Your task to perform on an android device: Open Youtube and go to the subscriptions tab Image 0: 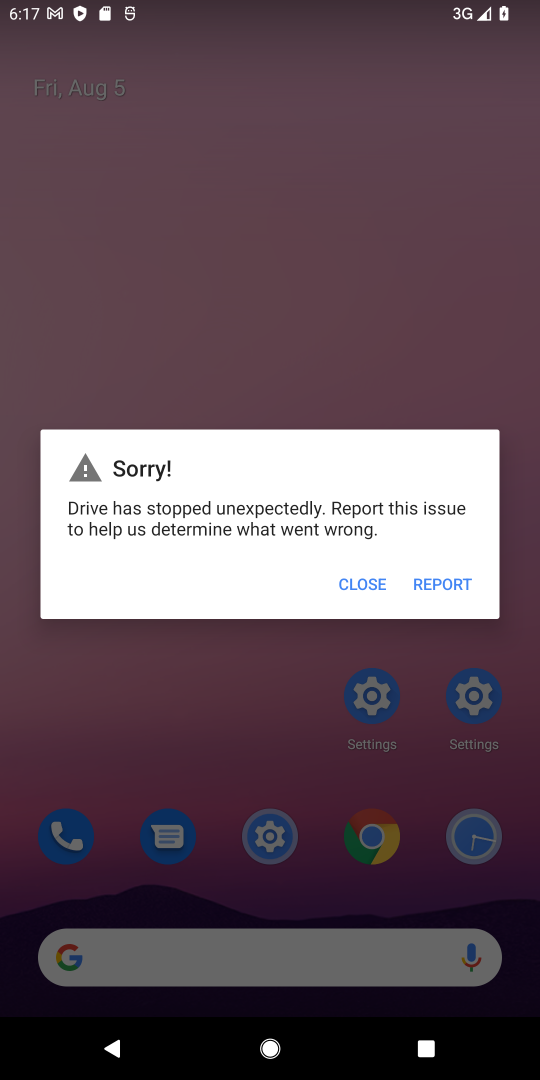
Step 0: click (347, 579)
Your task to perform on an android device: Open Youtube and go to the subscriptions tab Image 1: 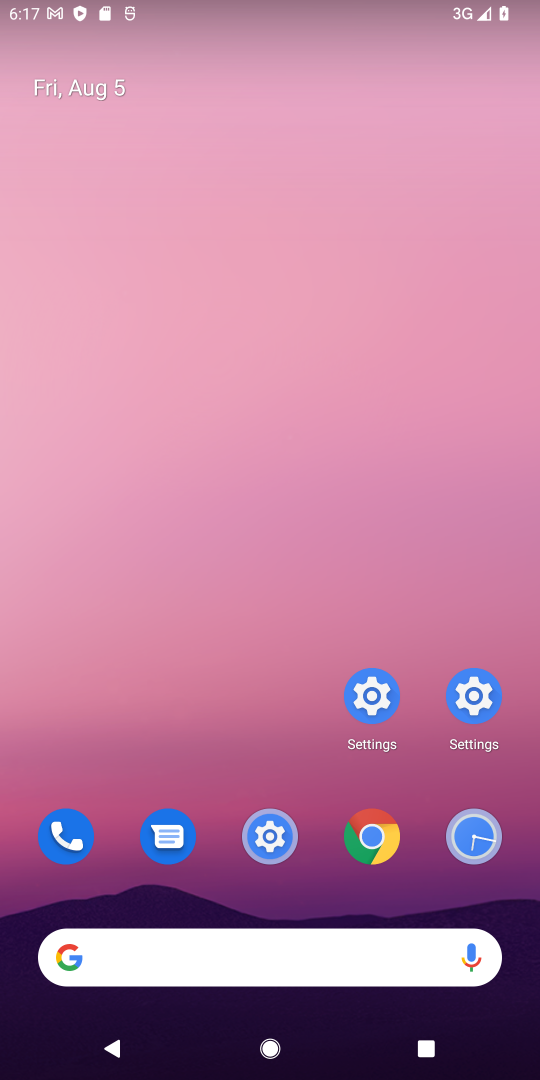
Step 1: click (351, 231)
Your task to perform on an android device: Open Youtube and go to the subscriptions tab Image 2: 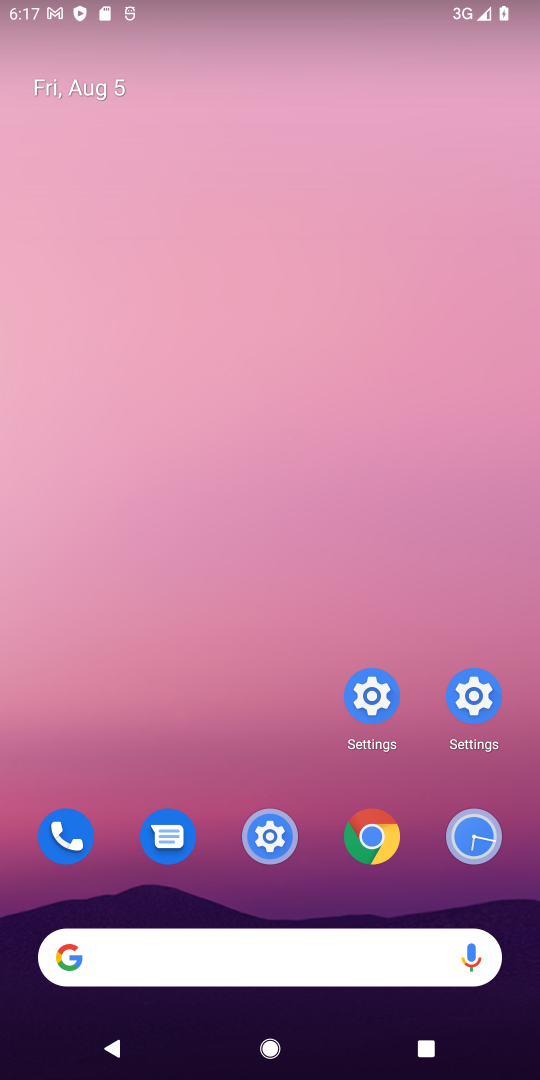
Step 2: press back button
Your task to perform on an android device: Open Youtube and go to the subscriptions tab Image 3: 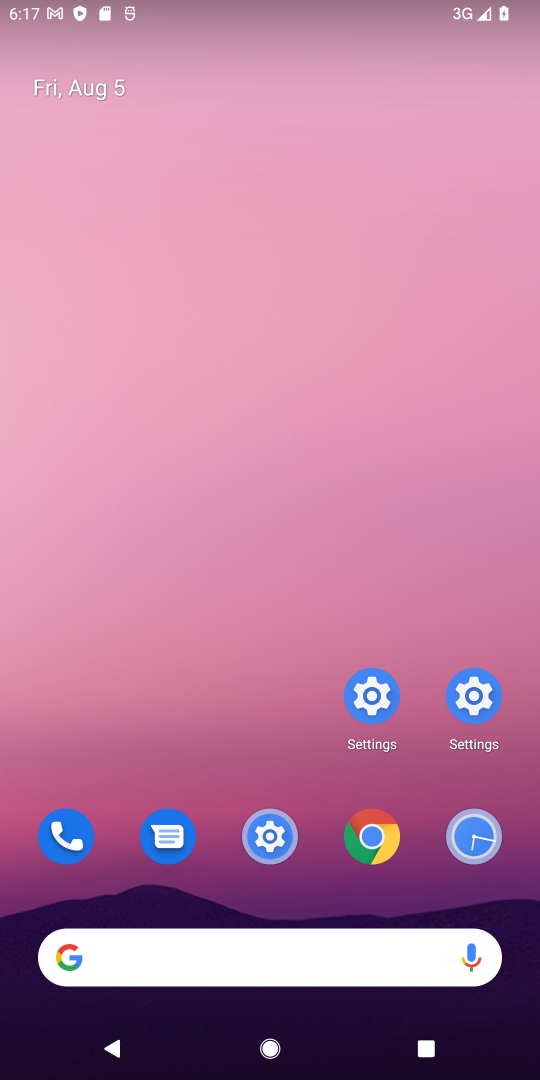
Step 3: drag from (355, 888) to (231, 165)
Your task to perform on an android device: Open Youtube and go to the subscriptions tab Image 4: 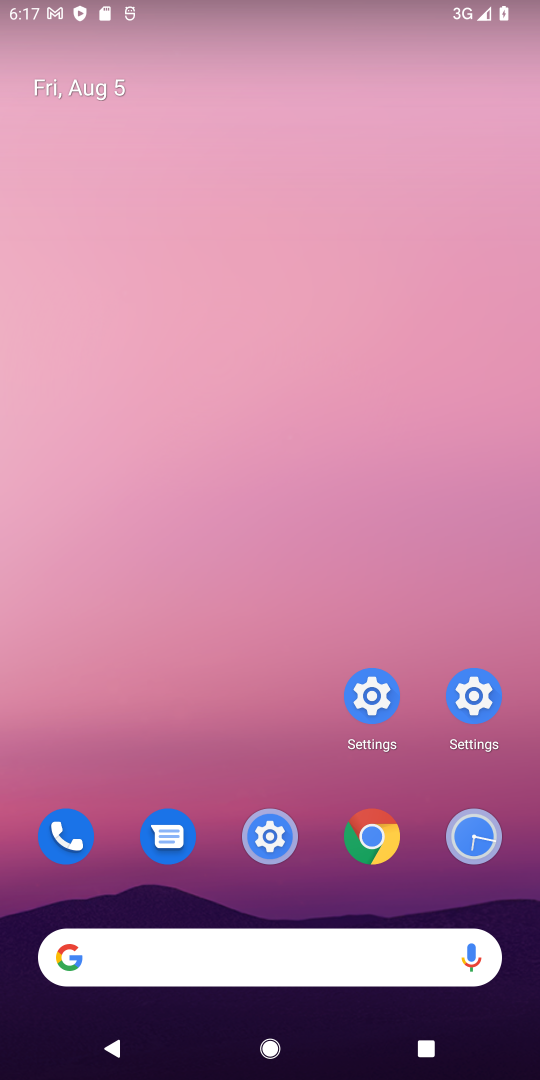
Step 4: drag from (319, 840) to (230, 227)
Your task to perform on an android device: Open Youtube and go to the subscriptions tab Image 5: 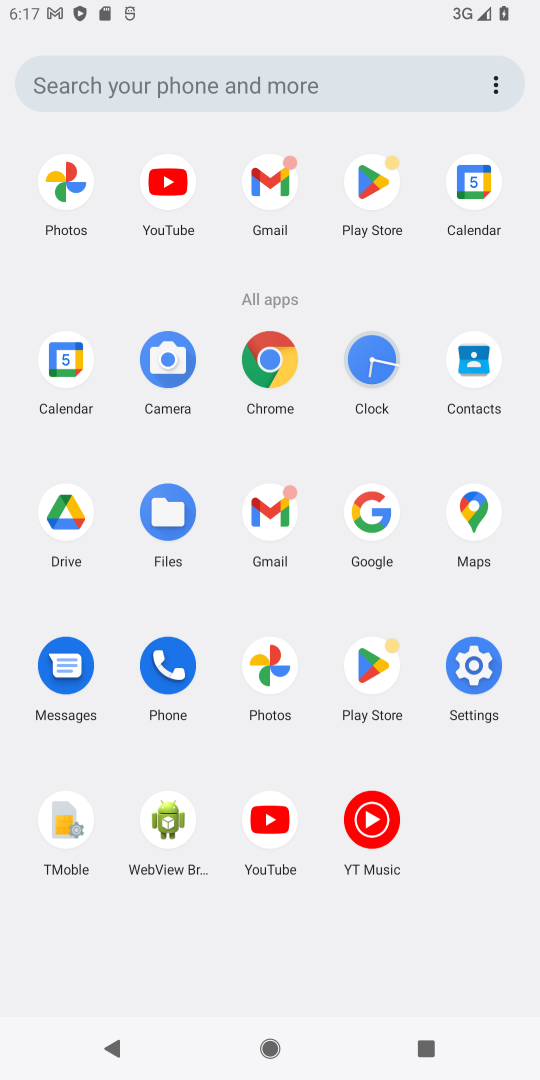
Step 5: drag from (264, 712) to (219, 309)
Your task to perform on an android device: Open Youtube and go to the subscriptions tab Image 6: 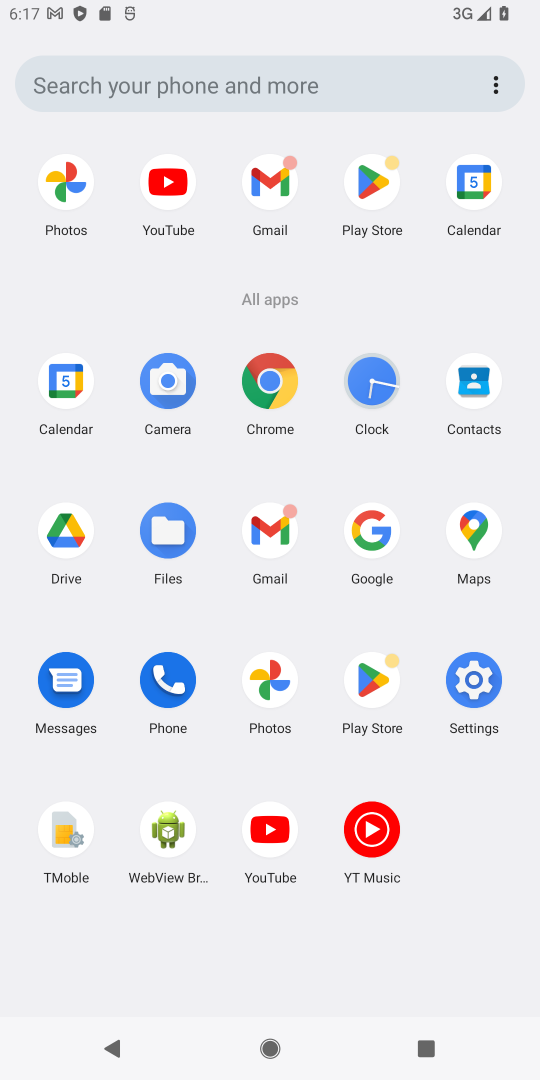
Step 6: click (275, 827)
Your task to perform on an android device: Open Youtube and go to the subscriptions tab Image 7: 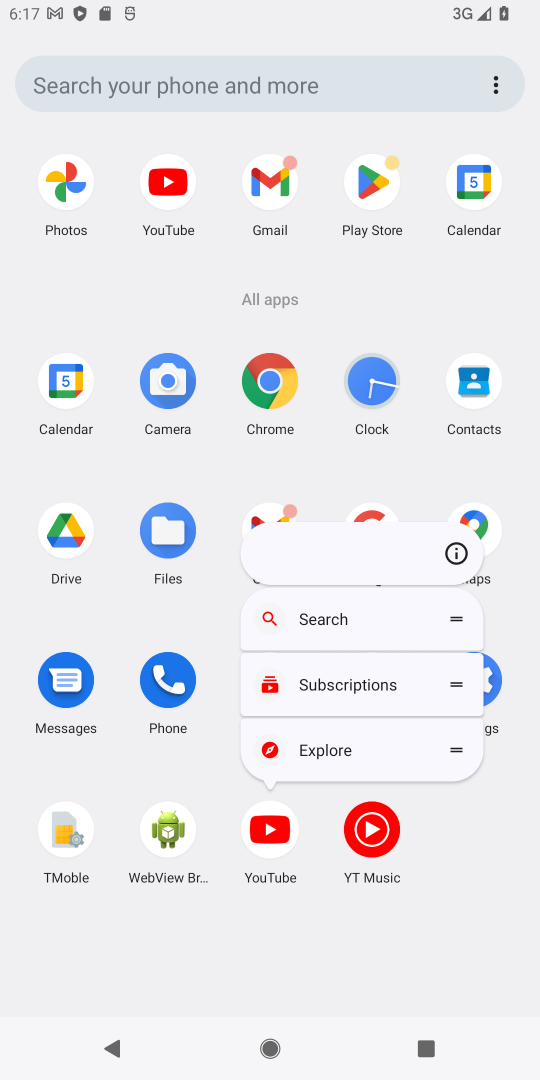
Step 7: click (266, 805)
Your task to perform on an android device: Open Youtube and go to the subscriptions tab Image 8: 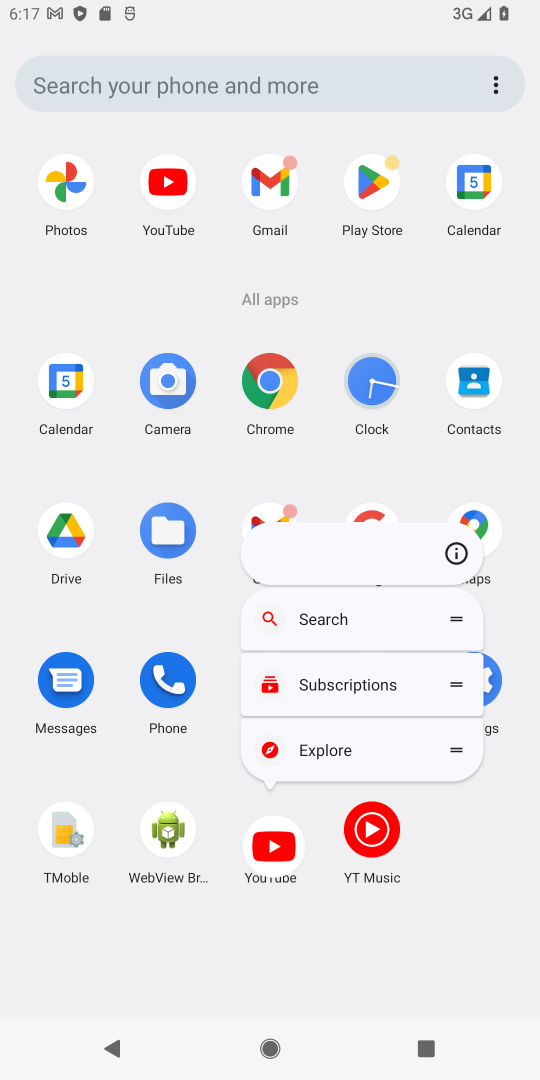
Step 8: click (273, 825)
Your task to perform on an android device: Open Youtube and go to the subscriptions tab Image 9: 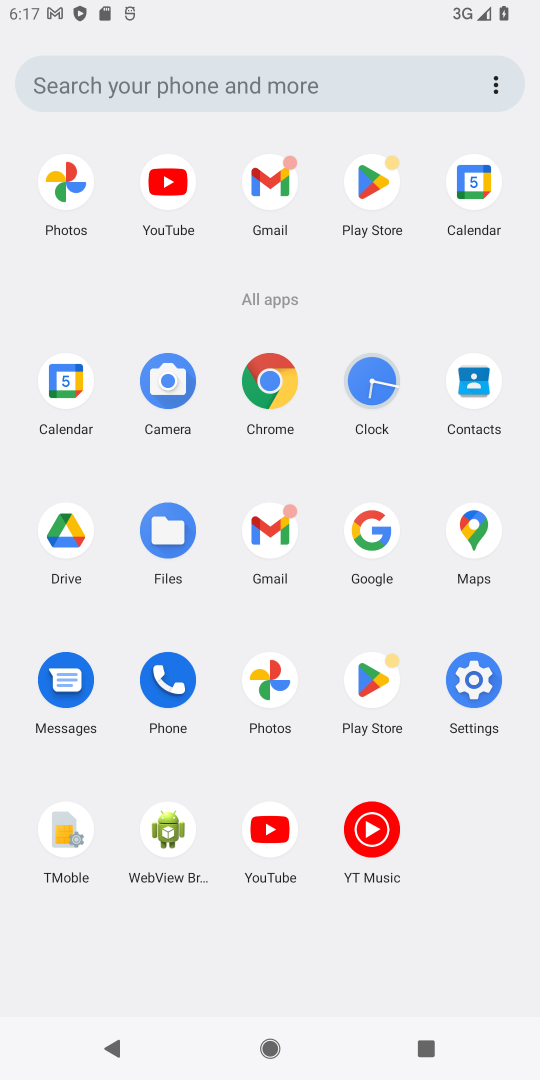
Step 9: click (266, 839)
Your task to perform on an android device: Open Youtube and go to the subscriptions tab Image 10: 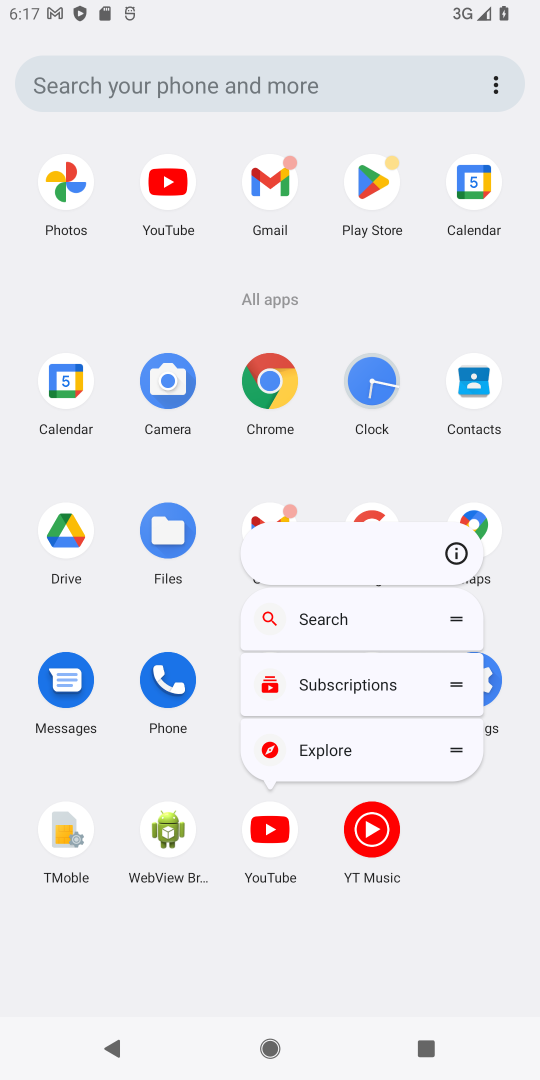
Step 10: click (261, 830)
Your task to perform on an android device: Open Youtube and go to the subscriptions tab Image 11: 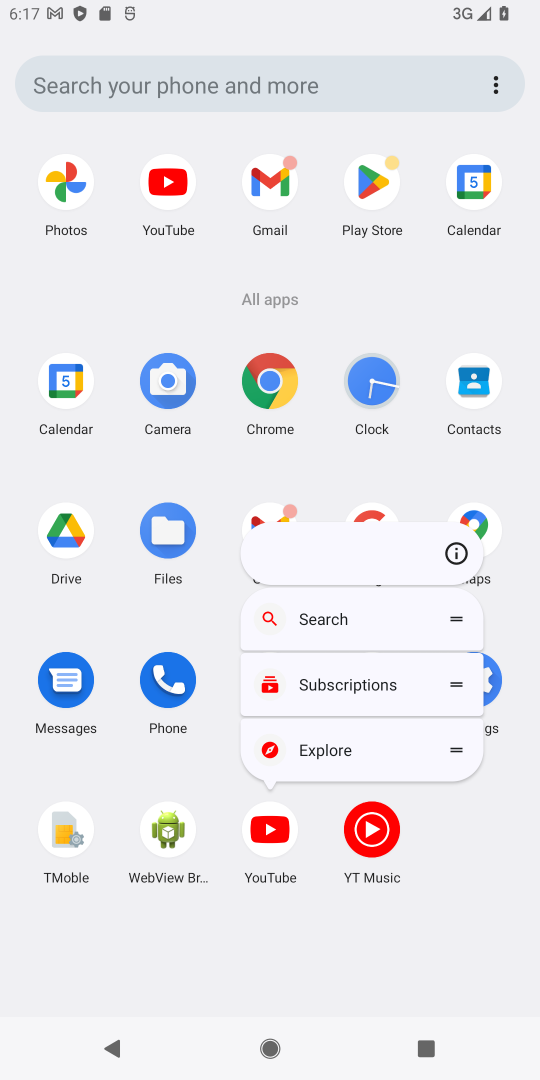
Step 11: click (262, 829)
Your task to perform on an android device: Open Youtube and go to the subscriptions tab Image 12: 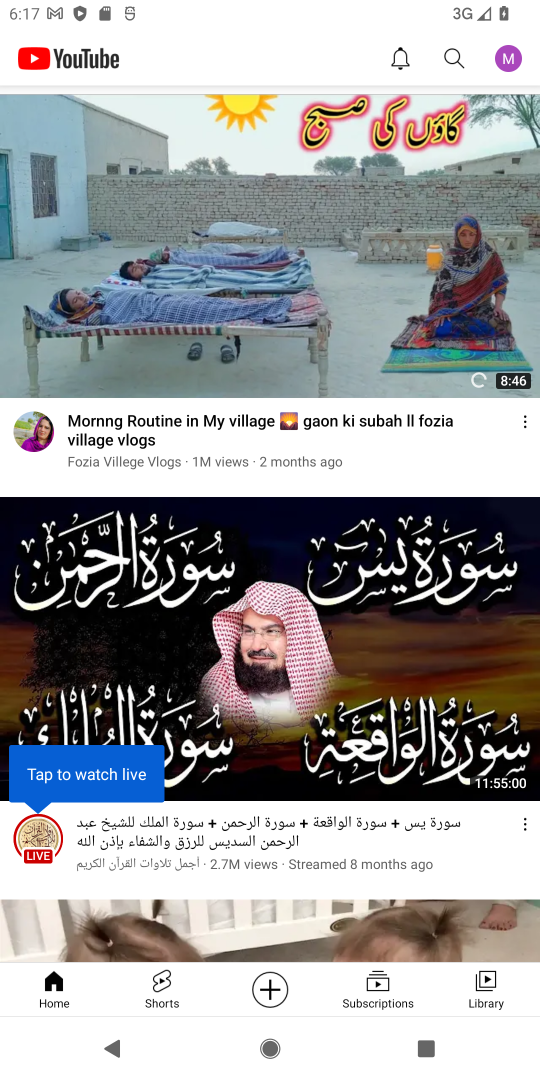
Step 12: press back button
Your task to perform on an android device: Open Youtube and go to the subscriptions tab Image 13: 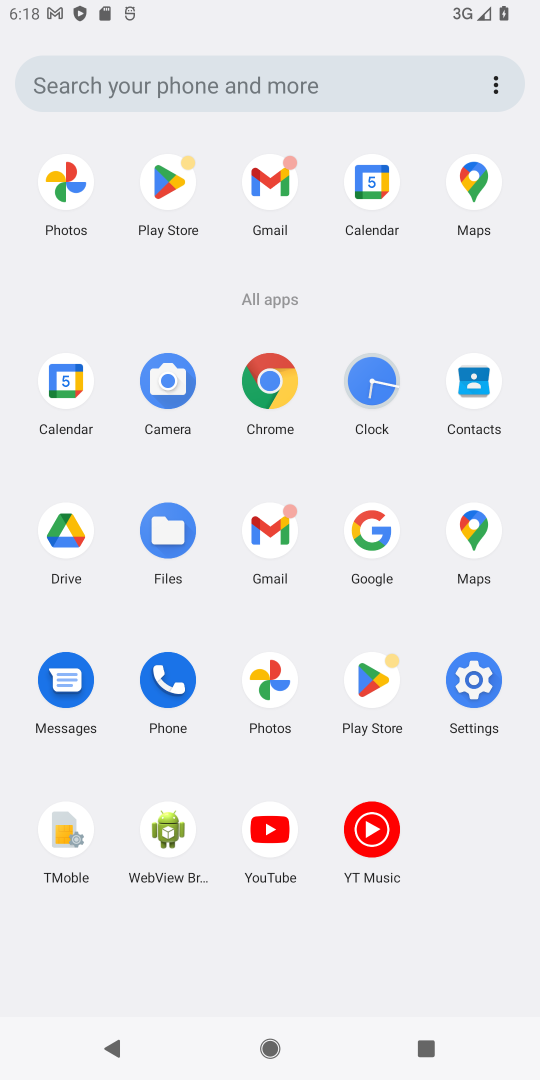
Step 13: click (265, 827)
Your task to perform on an android device: Open Youtube and go to the subscriptions tab Image 14: 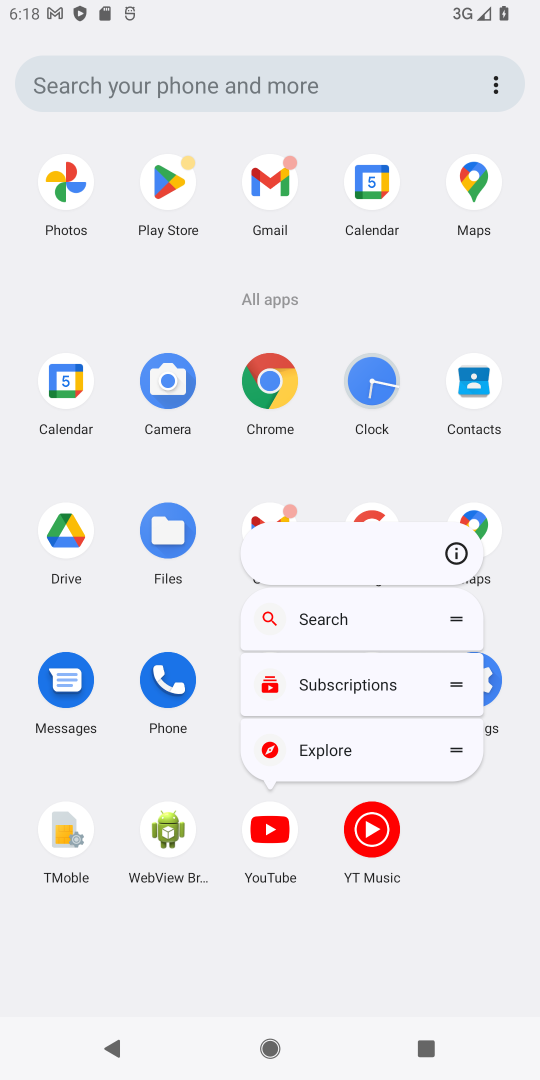
Step 14: click (357, 688)
Your task to perform on an android device: Open Youtube and go to the subscriptions tab Image 15: 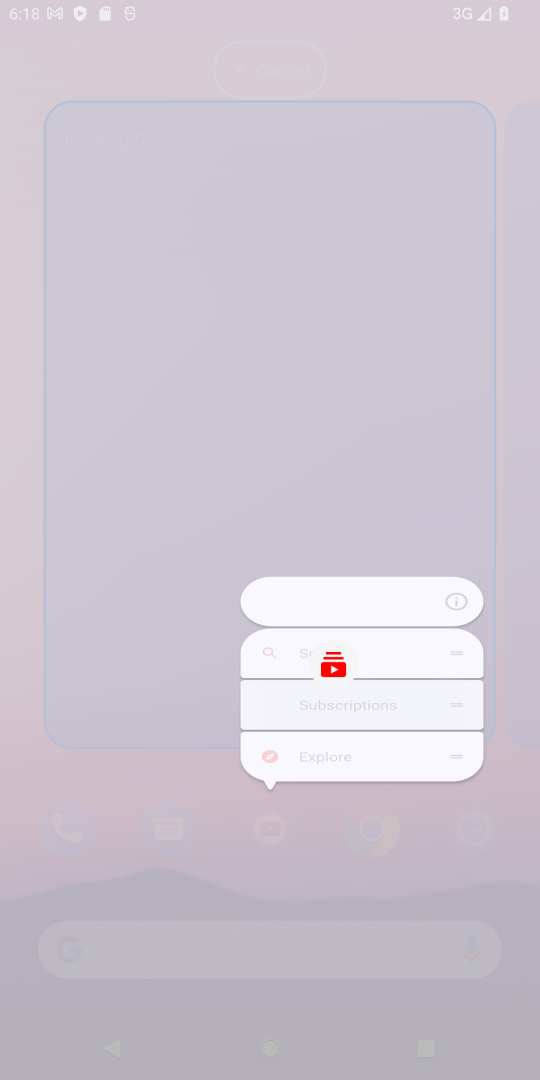
Step 15: click (357, 688)
Your task to perform on an android device: Open Youtube and go to the subscriptions tab Image 16: 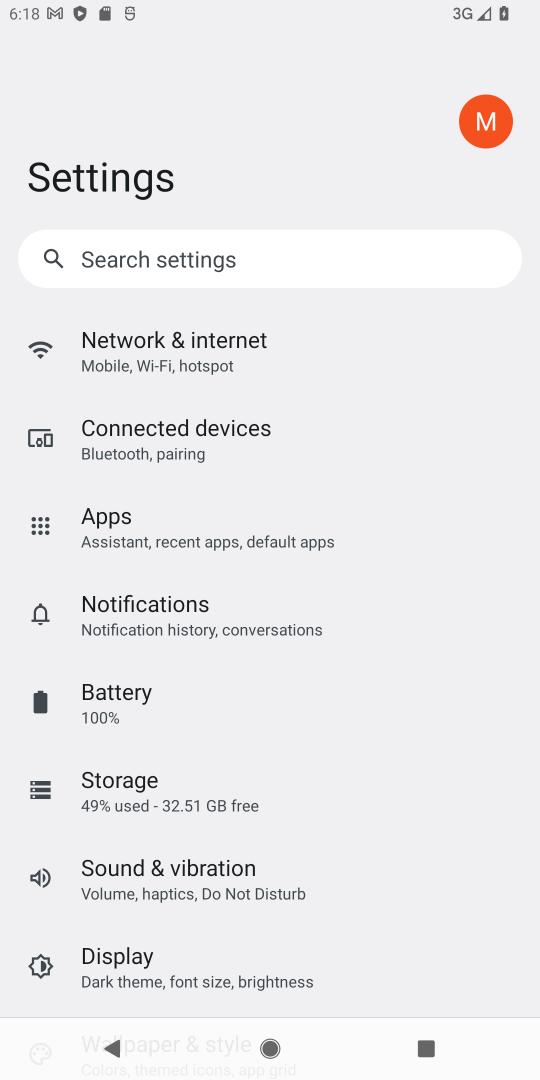
Step 16: task complete